Your task to perform on an android device: Open Reddit.com Image 0: 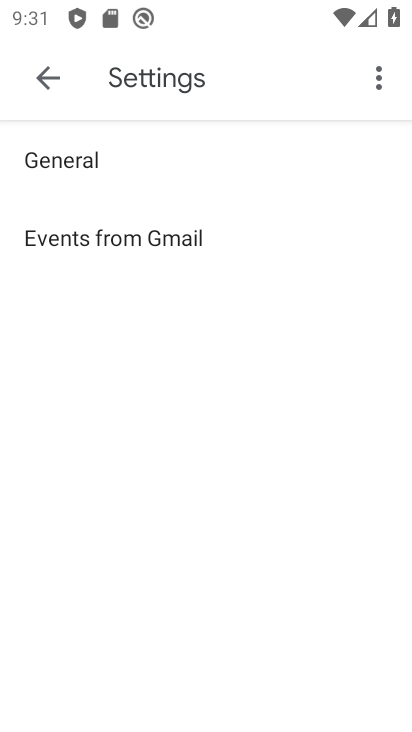
Step 0: press back button
Your task to perform on an android device: Open Reddit.com Image 1: 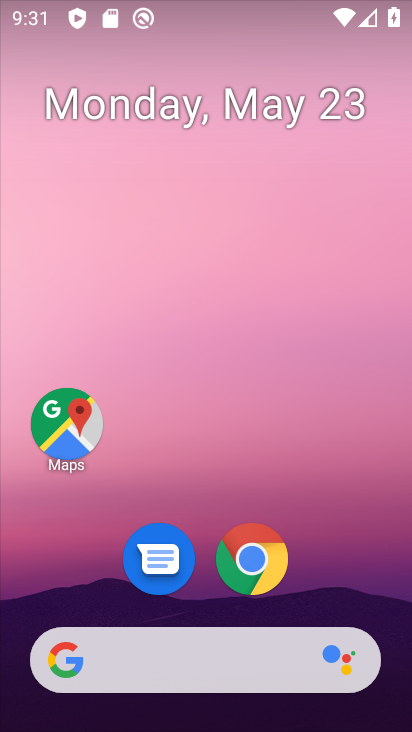
Step 1: click (159, 677)
Your task to perform on an android device: Open Reddit.com Image 2: 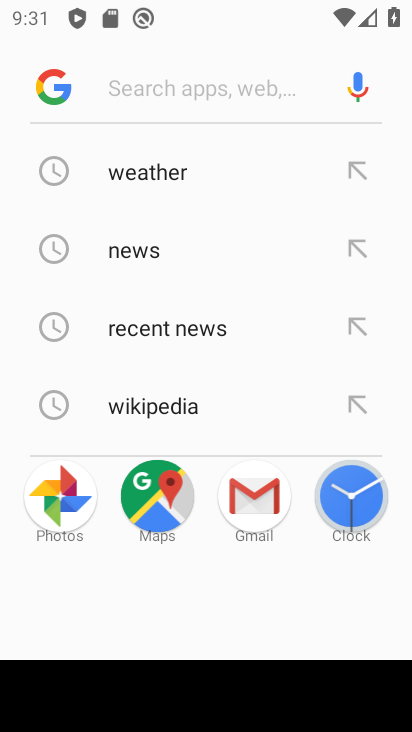
Step 2: type "Reddit.com"
Your task to perform on an android device: Open Reddit.com Image 3: 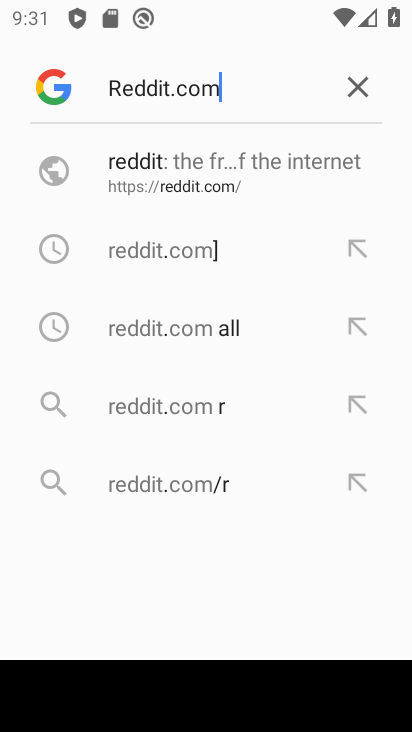
Step 3: click (213, 192)
Your task to perform on an android device: Open Reddit.com Image 4: 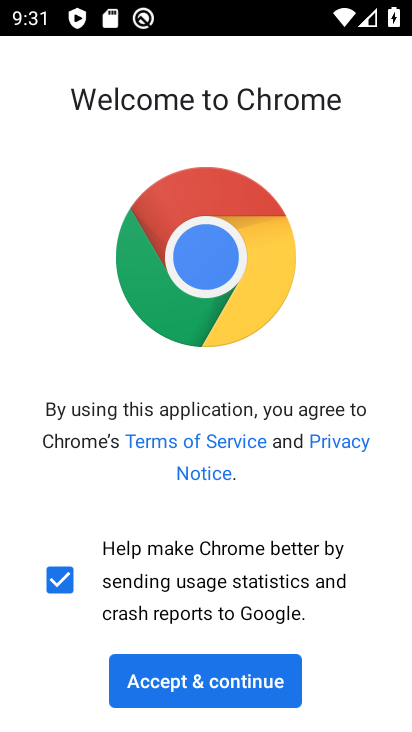
Step 4: click (265, 697)
Your task to perform on an android device: Open Reddit.com Image 5: 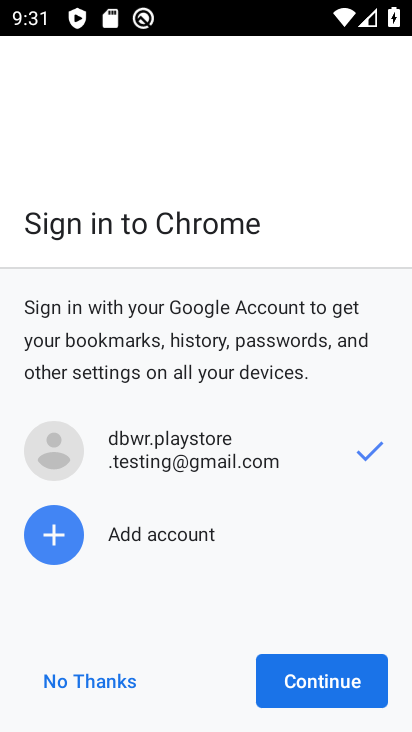
Step 5: click (312, 686)
Your task to perform on an android device: Open Reddit.com Image 6: 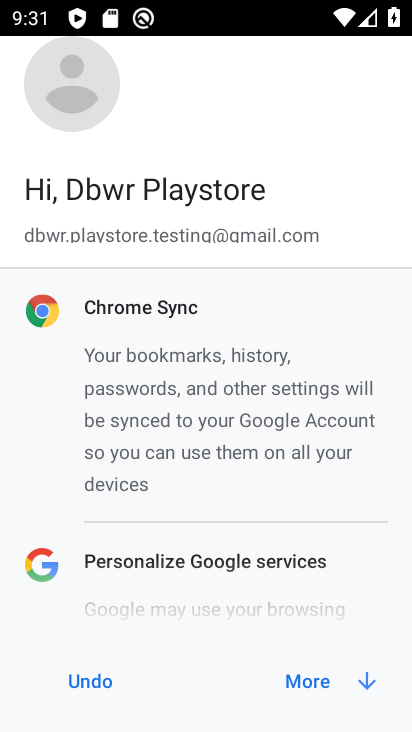
Step 6: click (312, 686)
Your task to perform on an android device: Open Reddit.com Image 7: 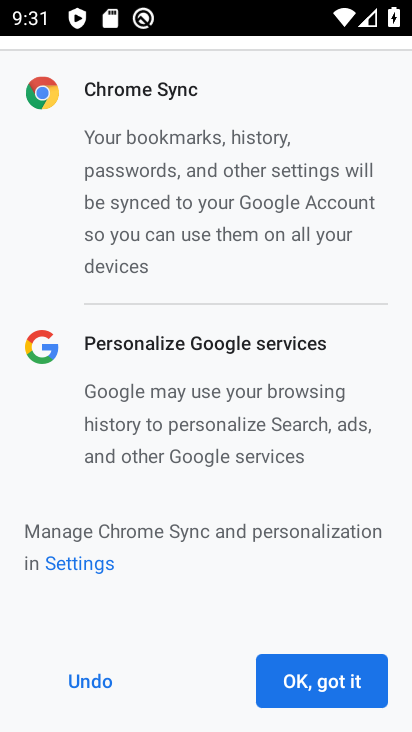
Step 7: click (312, 686)
Your task to perform on an android device: Open Reddit.com Image 8: 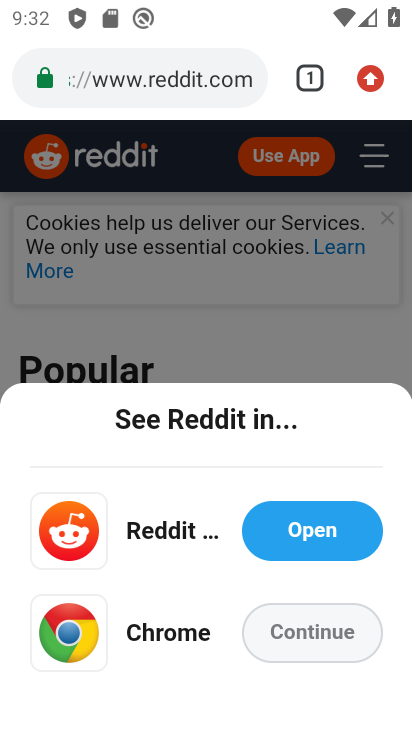
Step 8: click (317, 646)
Your task to perform on an android device: Open Reddit.com Image 9: 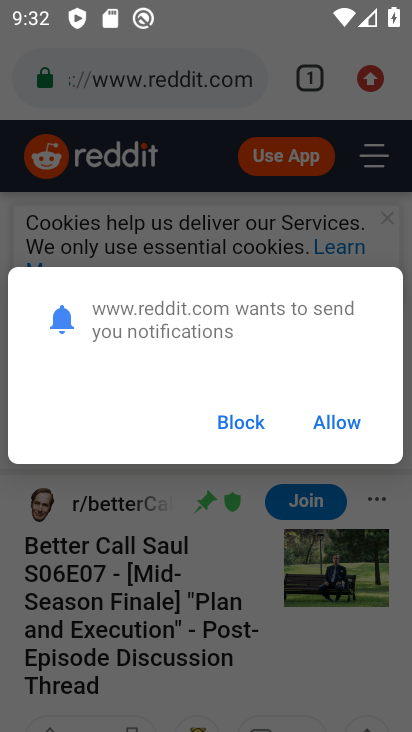
Step 9: click (341, 430)
Your task to perform on an android device: Open Reddit.com Image 10: 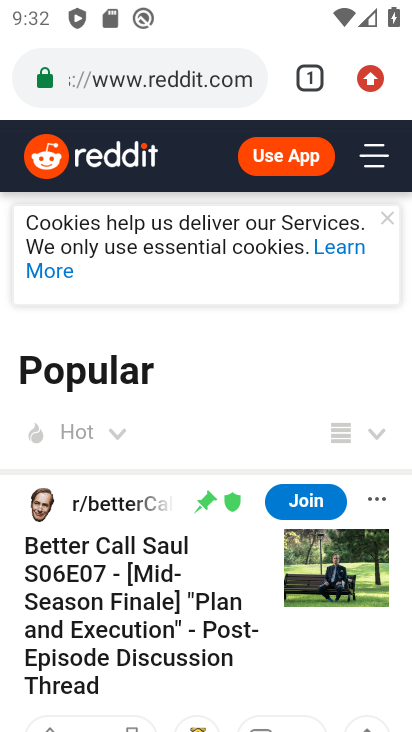
Step 10: task complete